Your task to perform on an android device: check the backup settings in the google photos Image 0: 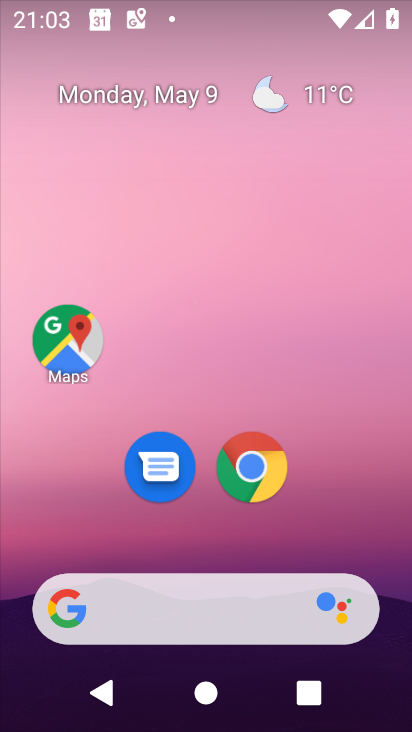
Step 0: drag from (294, 557) to (318, 176)
Your task to perform on an android device: check the backup settings in the google photos Image 1: 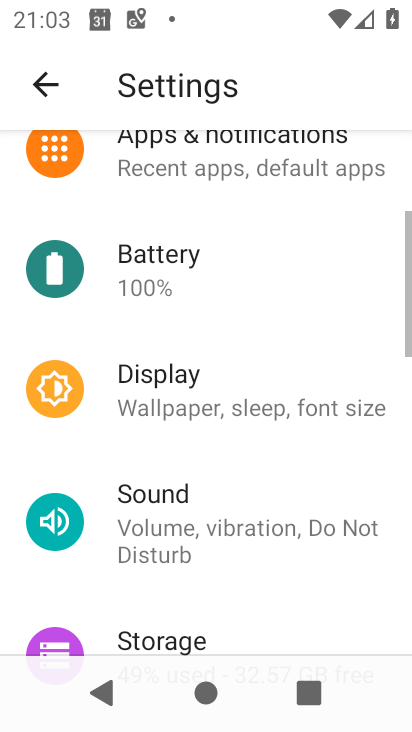
Step 1: press home button
Your task to perform on an android device: check the backup settings in the google photos Image 2: 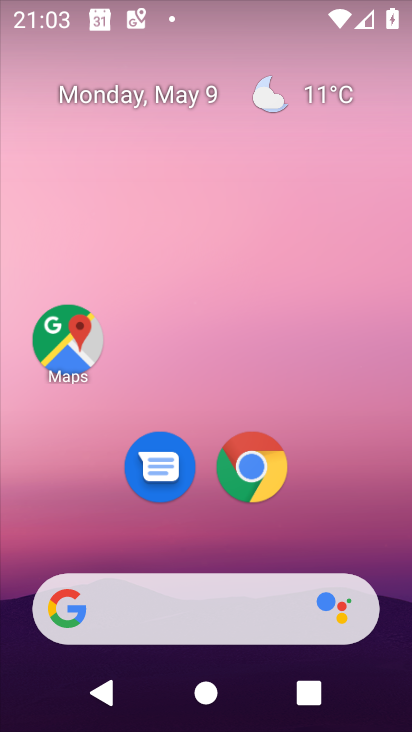
Step 2: drag from (282, 536) to (299, 222)
Your task to perform on an android device: check the backup settings in the google photos Image 3: 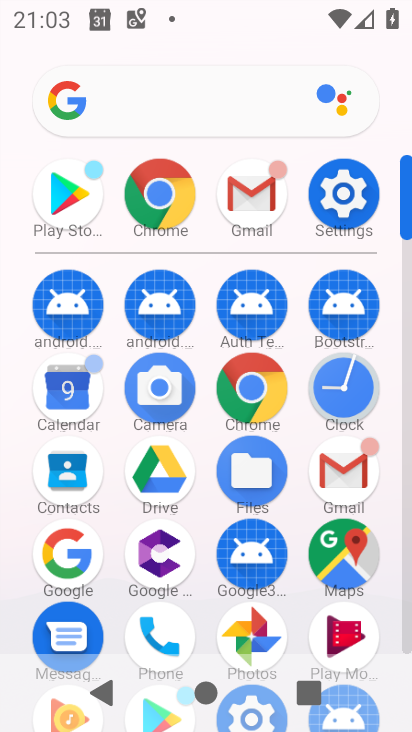
Step 3: click (245, 632)
Your task to perform on an android device: check the backup settings in the google photos Image 4: 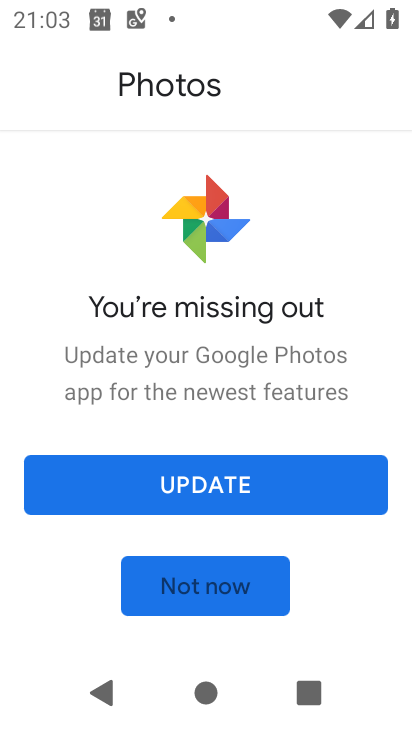
Step 4: click (268, 477)
Your task to perform on an android device: check the backup settings in the google photos Image 5: 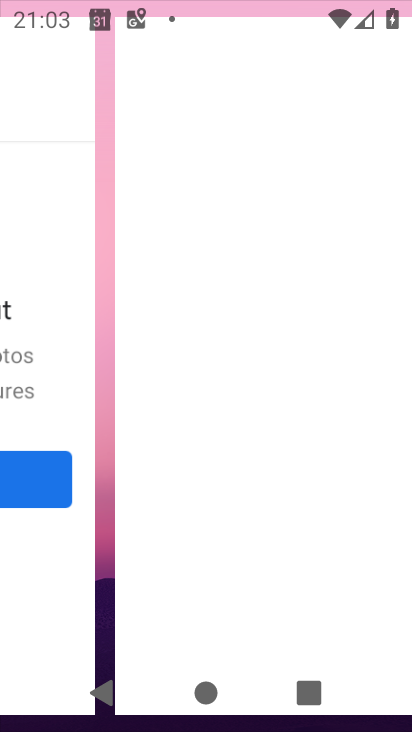
Step 5: click (202, 583)
Your task to perform on an android device: check the backup settings in the google photos Image 6: 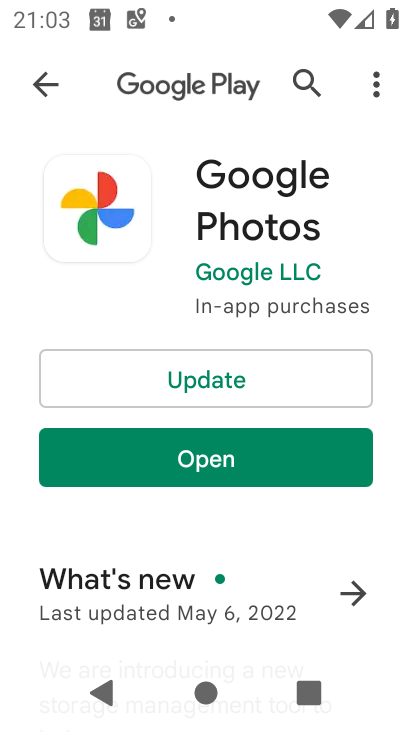
Step 6: press back button
Your task to perform on an android device: check the backup settings in the google photos Image 7: 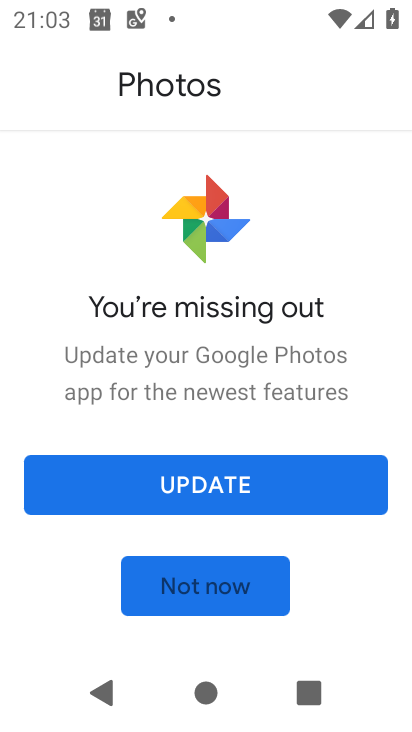
Step 7: click (242, 591)
Your task to perform on an android device: check the backup settings in the google photos Image 8: 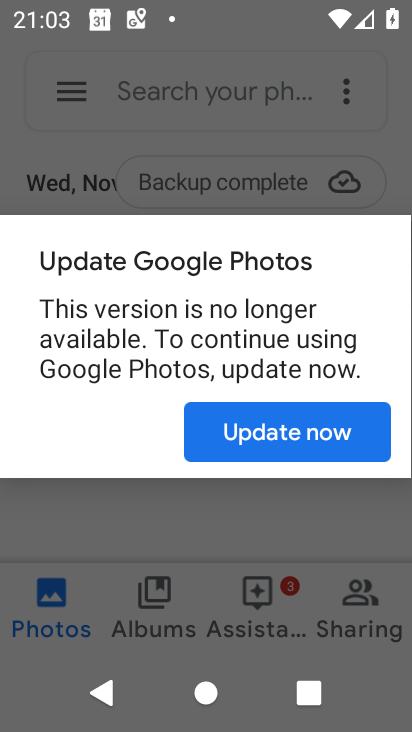
Step 8: press back button
Your task to perform on an android device: check the backup settings in the google photos Image 9: 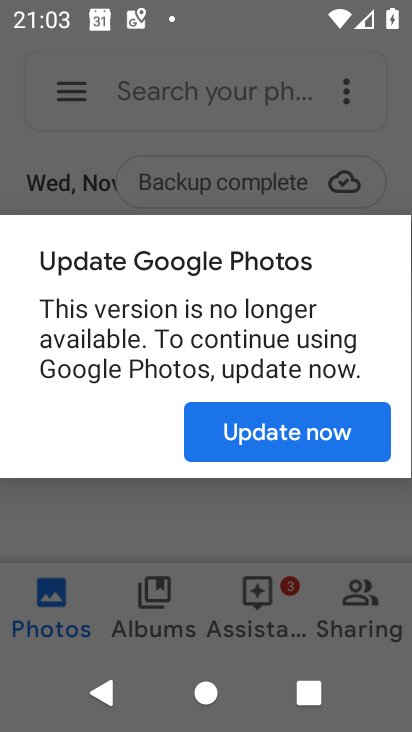
Step 9: click (277, 421)
Your task to perform on an android device: check the backup settings in the google photos Image 10: 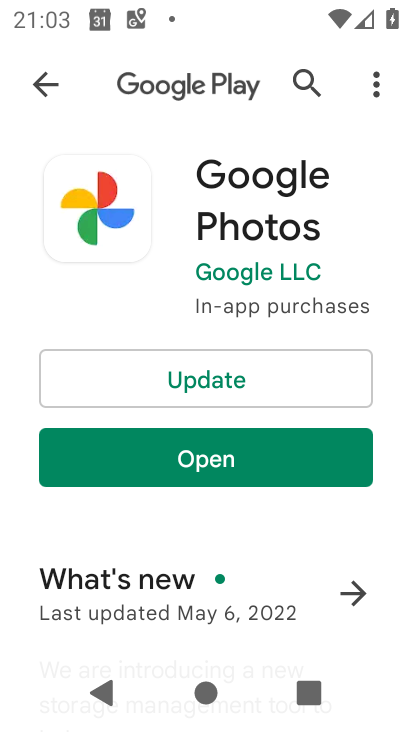
Step 10: press back button
Your task to perform on an android device: check the backup settings in the google photos Image 11: 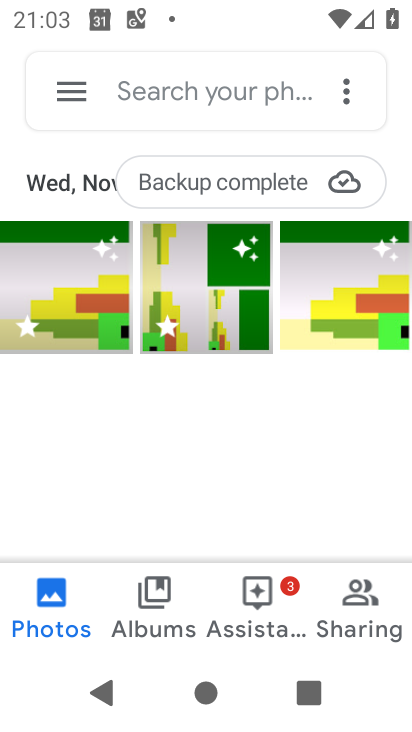
Step 11: click (56, 89)
Your task to perform on an android device: check the backup settings in the google photos Image 12: 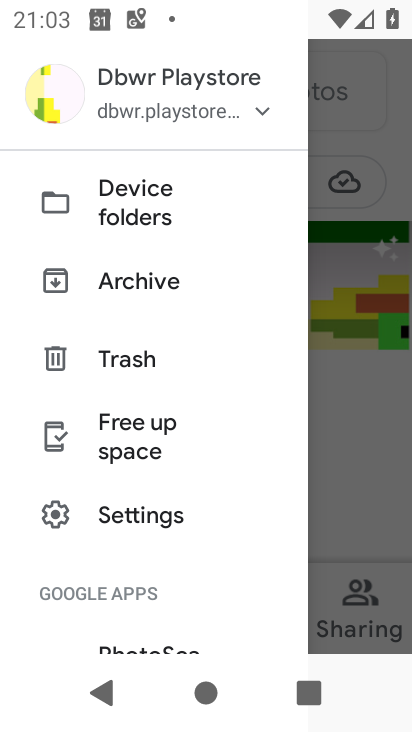
Step 12: drag from (134, 585) to (181, 438)
Your task to perform on an android device: check the backup settings in the google photos Image 13: 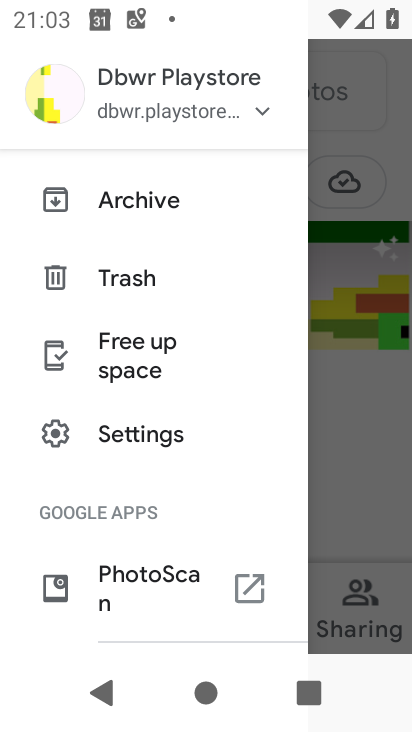
Step 13: click (170, 435)
Your task to perform on an android device: check the backup settings in the google photos Image 14: 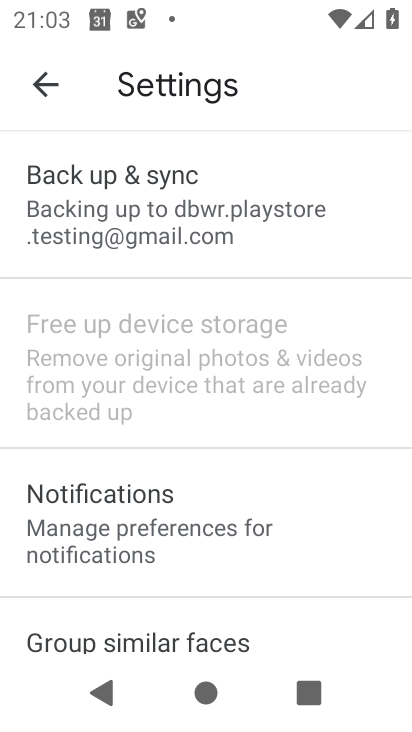
Step 14: click (199, 212)
Your task to perform on an android device: check the backup settings in the google photos Image 15: 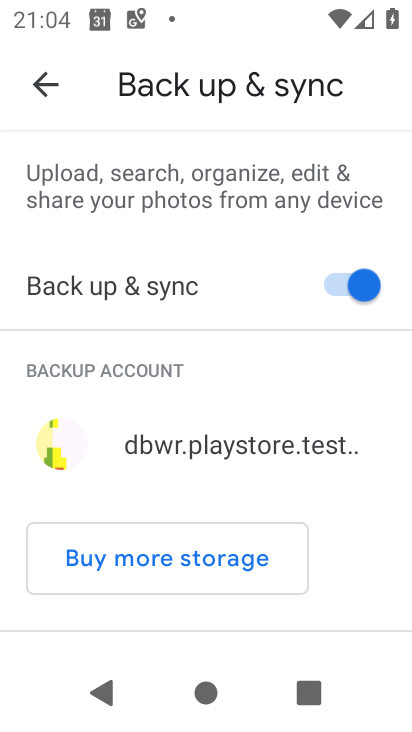
Step 15: task complete